Your task to perform on an android device: Open Youtube and go to "Your channel" Image 0: 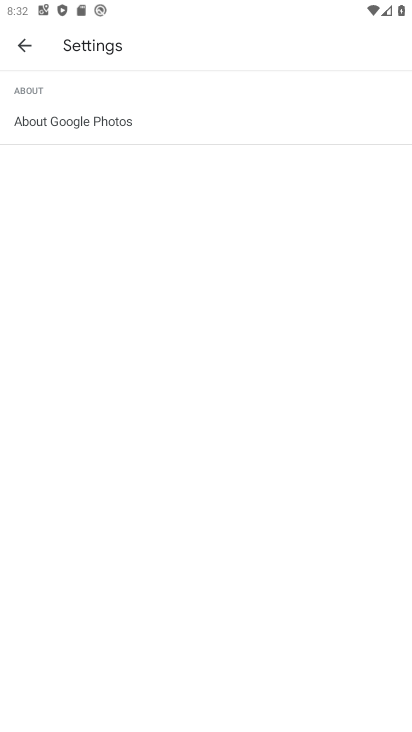
Step 0: press home button
Your task to perform on an android device: Open Youtube and go to "Your channel" Image 1: 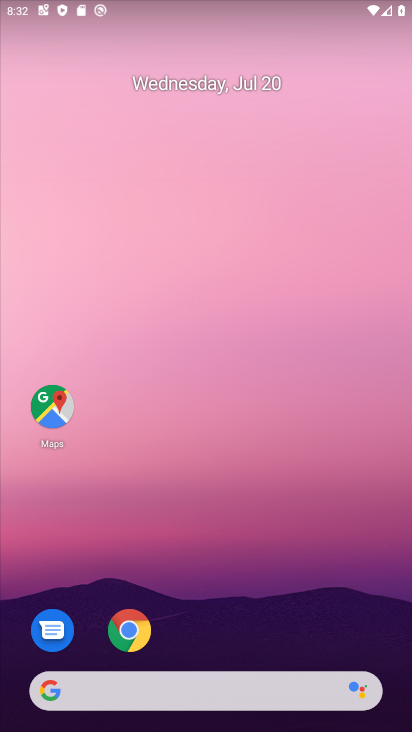
Step 1: drag from (397, 684) to (322, 47)
Your task to perform on an android device: Open Youtube and go to "Your channel" Image 2: 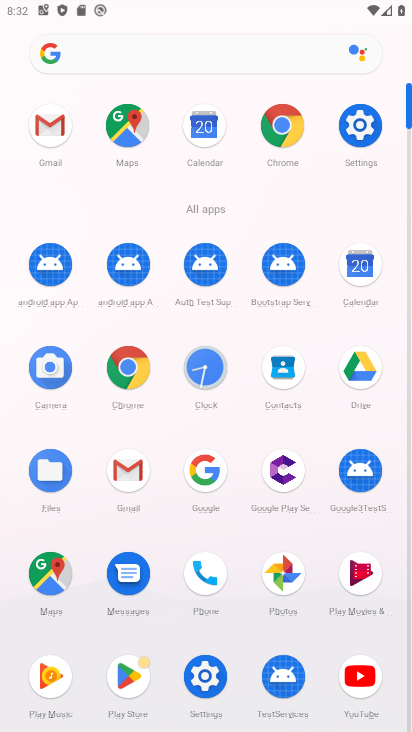
Step 2: click (352, 682)
Your task to perform on an android device: Open Youtube and go to "Your channel" Image 3: 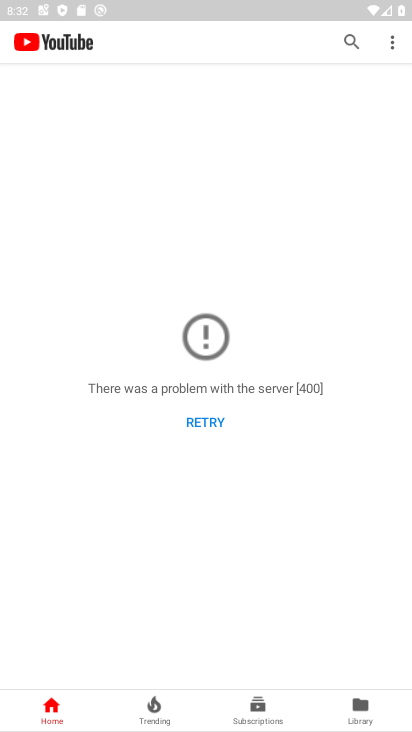
Step 3: task complete